Your task to perform on an android device: Open calendar and show me the fourth week of next month Image 0: 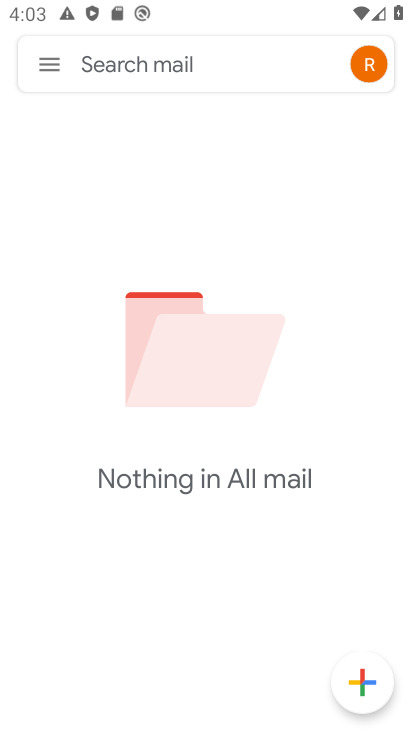
Step 0: press home button
Your task to perform on an android device: Open calendar and show me the fourth week of next month Image 1: 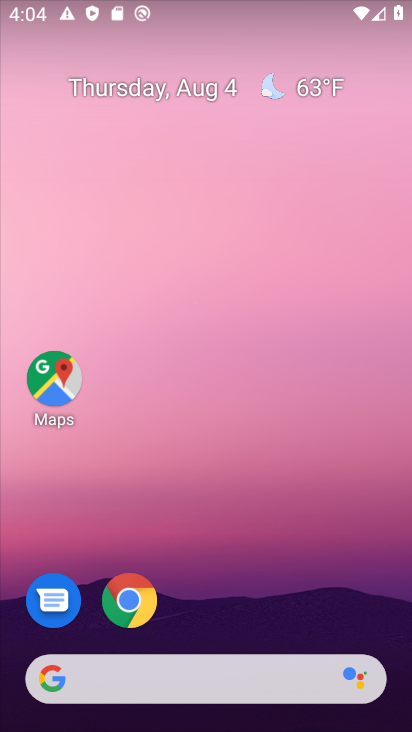
Step 1: drag from (282, 451) to (257, 4)
Your task to perform on an android device: Open calendar and show me the fourth week of next month Image 2: 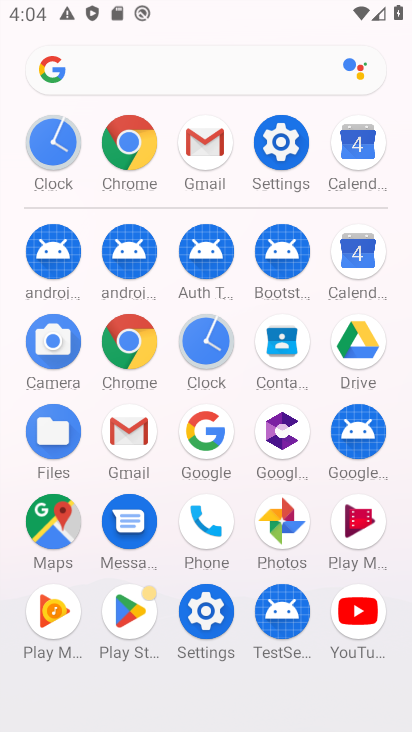
Step 2: click (362, 242)
Your task to perform on an android device: Open calendar and show me the fourth week of next month Image 3: 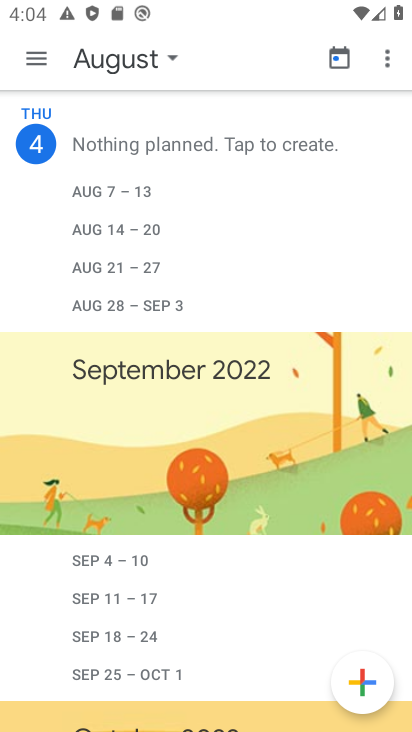
Step 3: click (113, 66)
Your task to perform on an android device: Open calendar and show me the fourth week of next month Image 4: 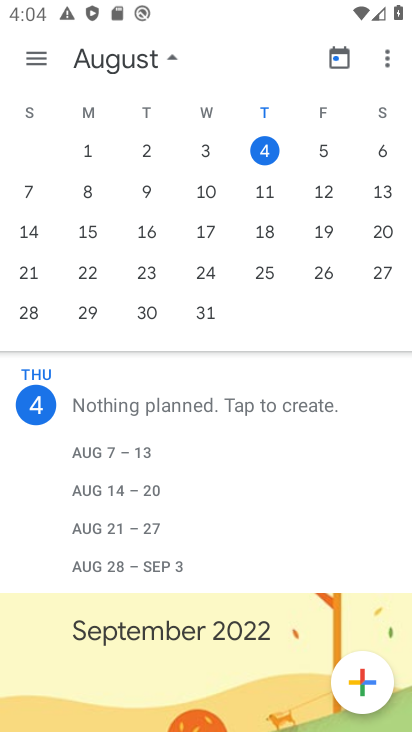
Step 4: drag from (360, 279) to (59, 222)
Your task to perform on an android device: Open calendar and show me the fourth week of next month Image 5: 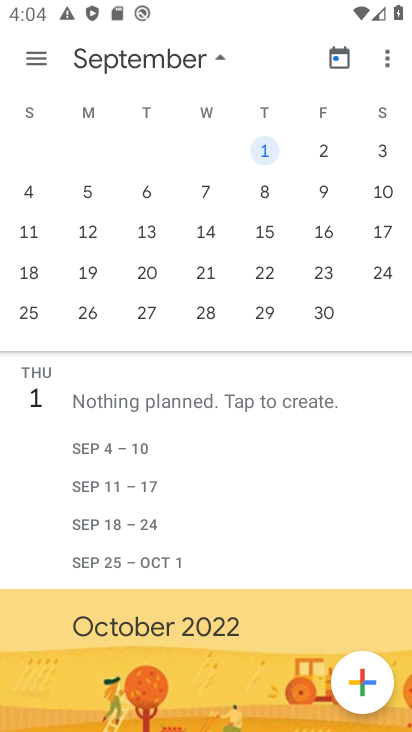
Step 5: click (80, 312)
Your task to perform on an android device: Open calendar and show me the fourth week of next month Image 6: 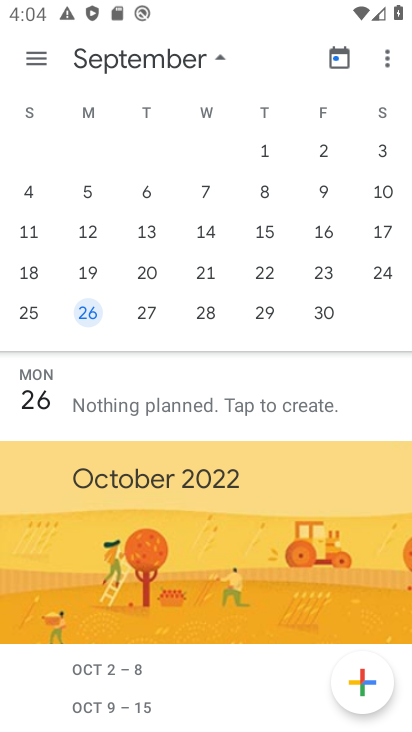
Step 6: click (43, 63)
Your task to perform on an android device: Open calendar and show me the fourth week of next month Image 7: 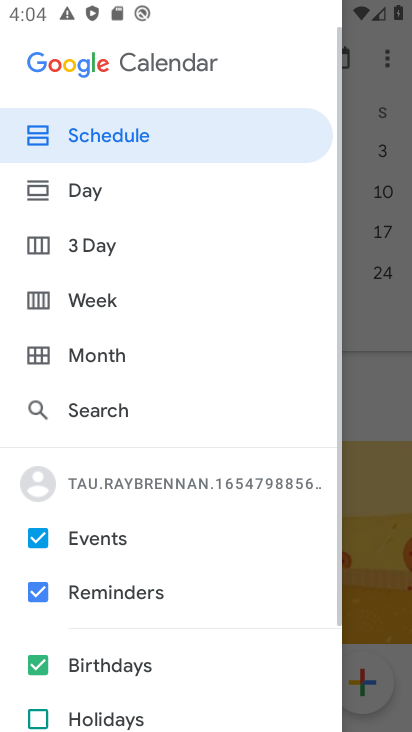
Step 7: click (107, 295)
Your task to perform on an android device: Open calendar and show me the fourth week of next month Image 8: 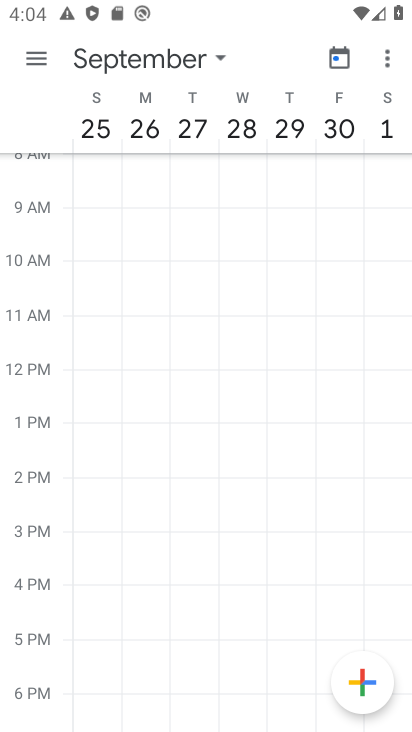
Step 8: task complete